Your task to perform on an android device: remove spam from my inbox in the gmail app Image 0: 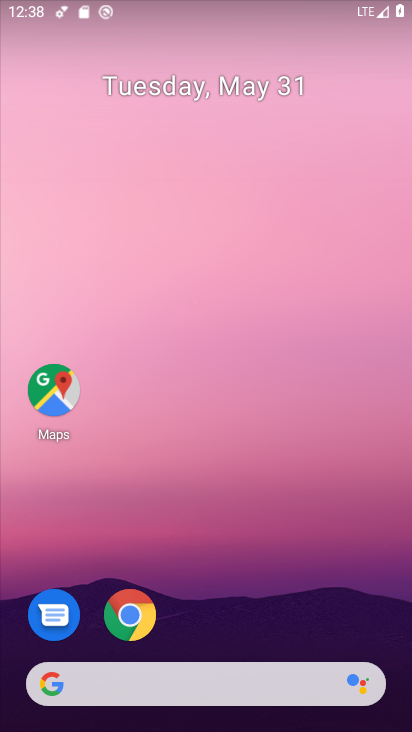
Step 0: drag from (237, 565) to (212, 3)
Your task to perform on an android device: remove spam from my inbox in the gmail app Image 1: 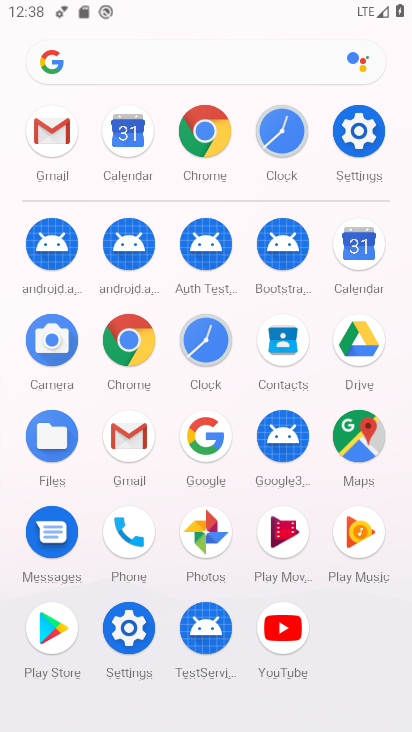
Step 1: click (127, 444)
Your task to perform on an android device: remove spam from my inbox in the gmail app Image 2: 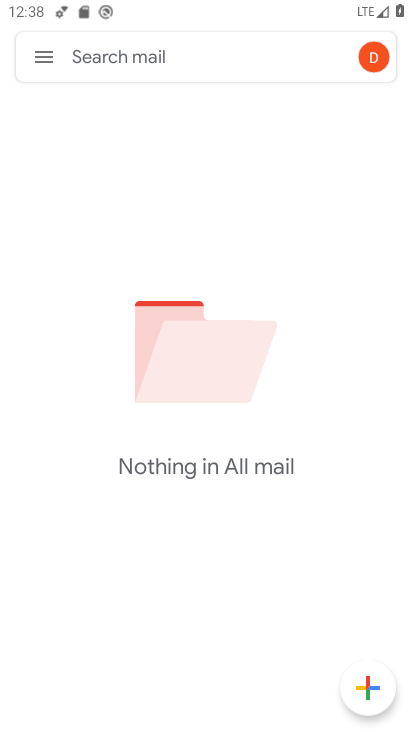
Step 2: click (40, 53)
Your task to perform on an android device: remove spam from my inbox in the gmail app Image 3: 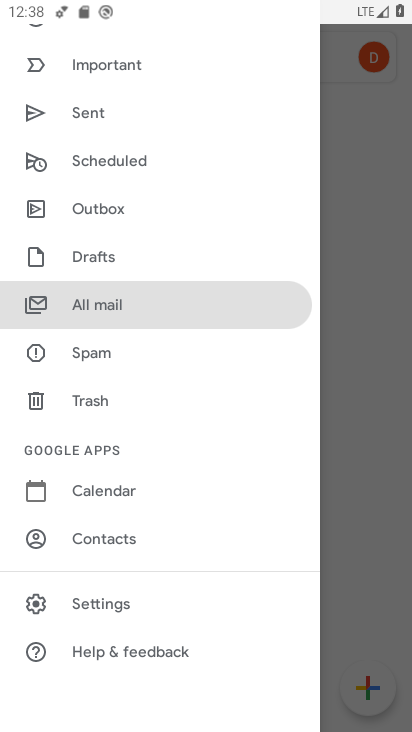
Step 3: click (98, 353)
Your task to perform on an android device: remove spam from my inbox in the gmail app Image 4: 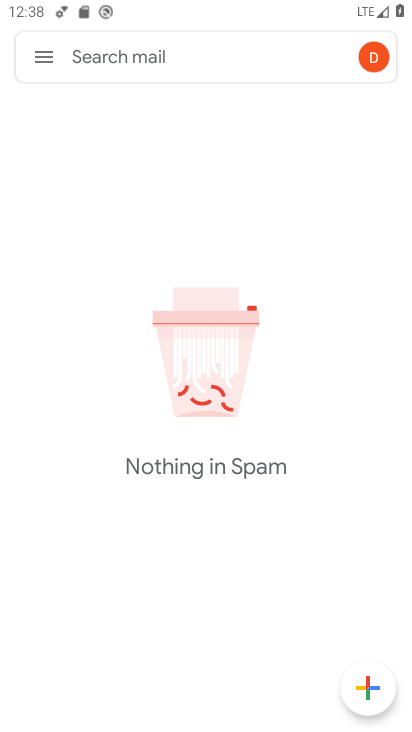
Step 4: task complete